Your task to perform on an android device: turn on priority inbox in the gmail app Image 0: 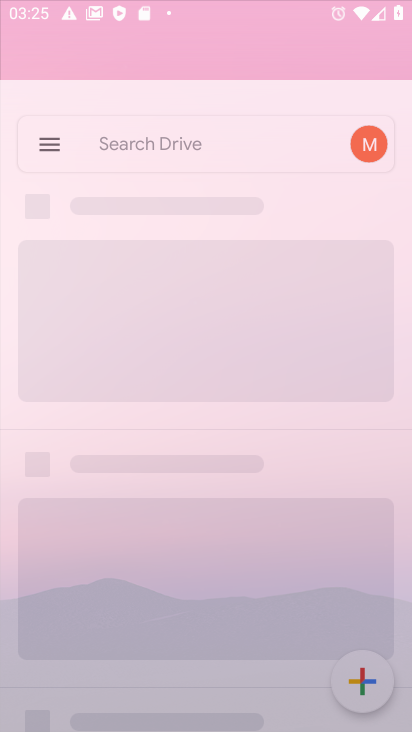
Step 0: press home button
Your task to perform on an android device: turn on priority inbox in the gmail app Image 1: 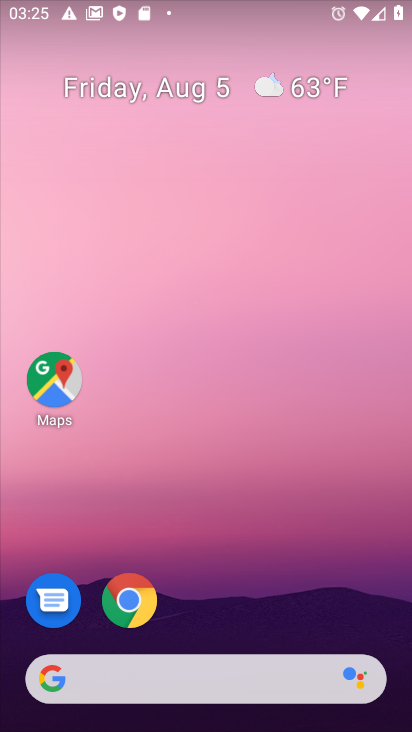
Step 1: drag from (206, 692) to (276, 79)
Your task to perform on an android device: turn on priority inbox in the gmail app Image 2: 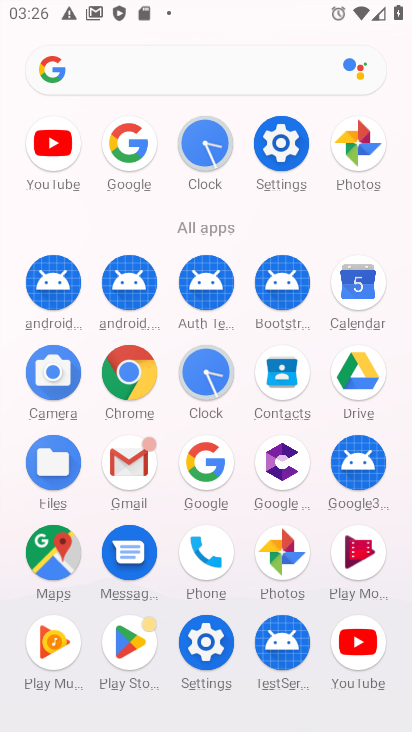
Step 2: click (129, 464)
Your task to perform on an android device: turn on priority inbox in the gmail app Image 3: 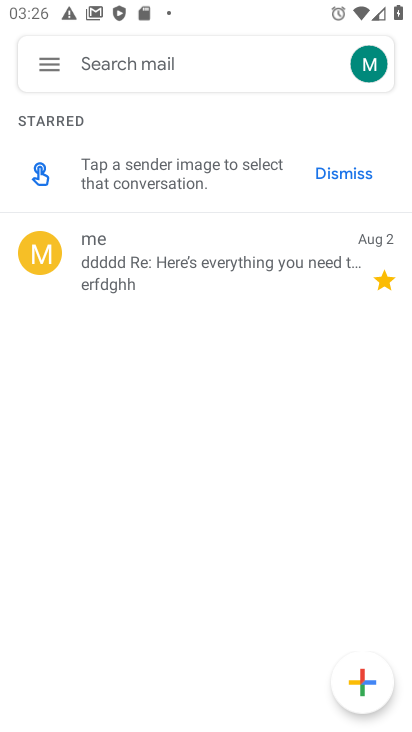
Step 3: click (53, 68)
Your task to perform on an android device: turn on priority inbox in the gmail app Image 4: 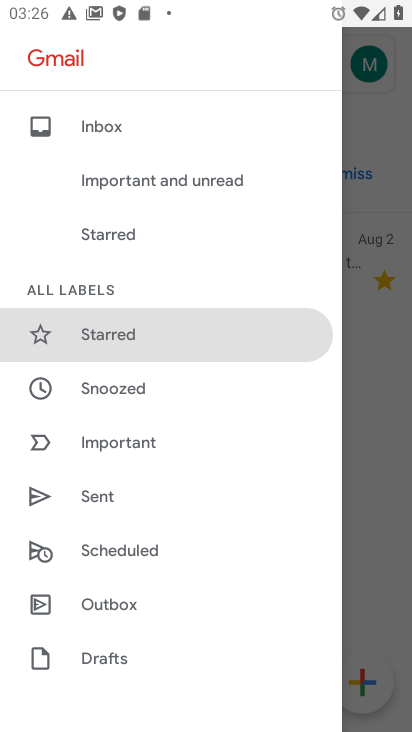
Step 4: drag from (111, 419) to (162, 332)
Your task to perform on an android device: turn on priority inbox in the gmail app Image 5: 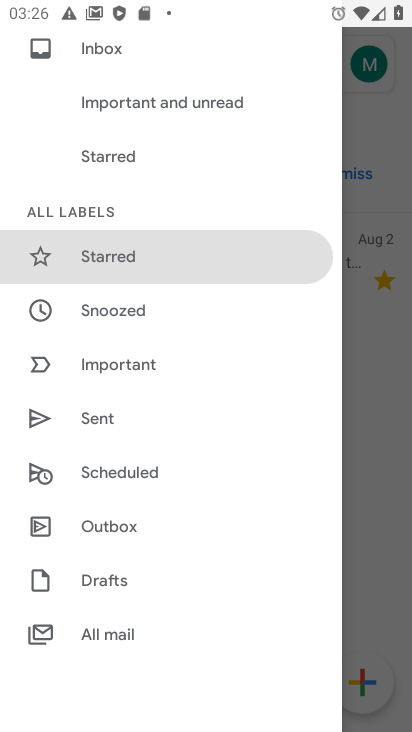
Step 5: drag from (127, 489) to (164, 398)
Your task to perform on an android device: turn on priority inbox in the gmail app Image 6: 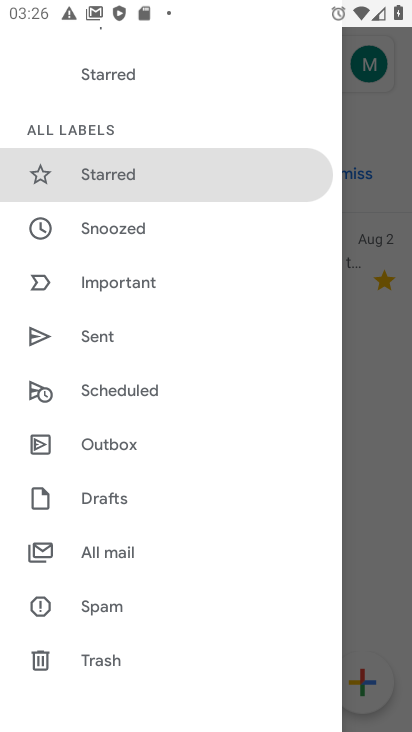
Step 6: drag from (106, 470) to (147, 382)
Your task to perform on an android device: turn on priority inbox in the gmail app Image 7: 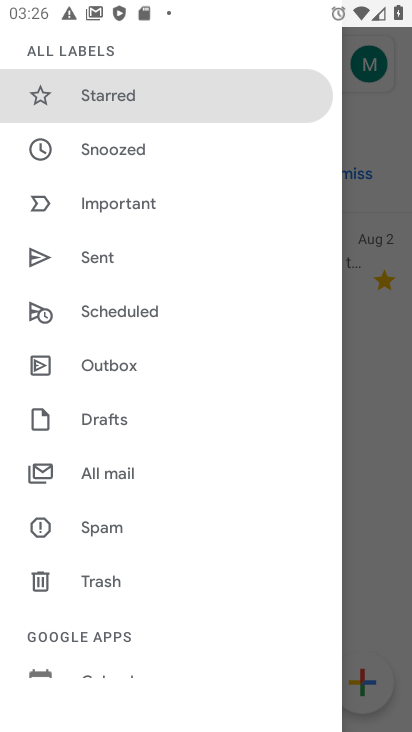
Step 7: drag from (103, 452) to (150, 379)
Your task to perform on an android device: turn on priority inbox in the gmail app Image 8: 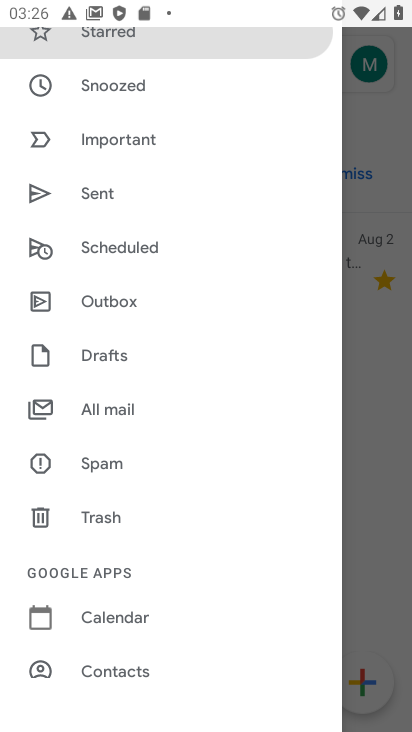
Step 8: drag from (102, 490) to (159, 402)
Your task to perform on an android device: turn on priority inbox in the gmail app Image 9: 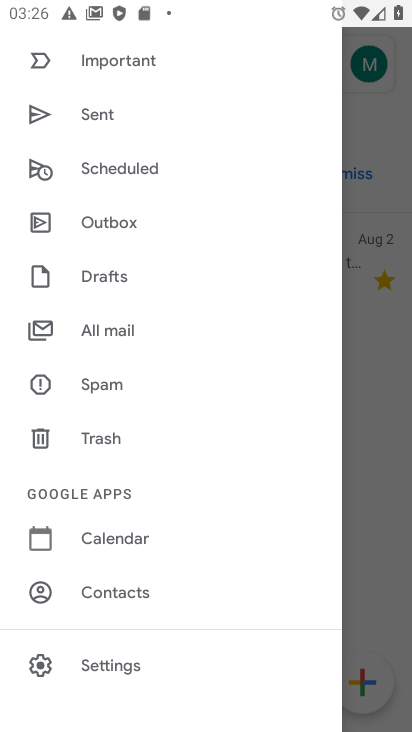
Step 9: drag from (109, 534) to (182, 439)
Your task to perform on an android device: turn on priority inbox in the gmail app Image 10: 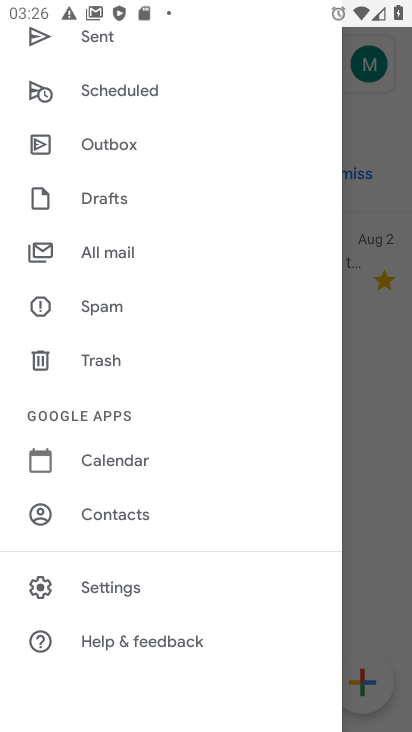
Step 10: click (118, 590)
Your task to perform on an android device: turn on priority inbox in the gmail app Image 11: 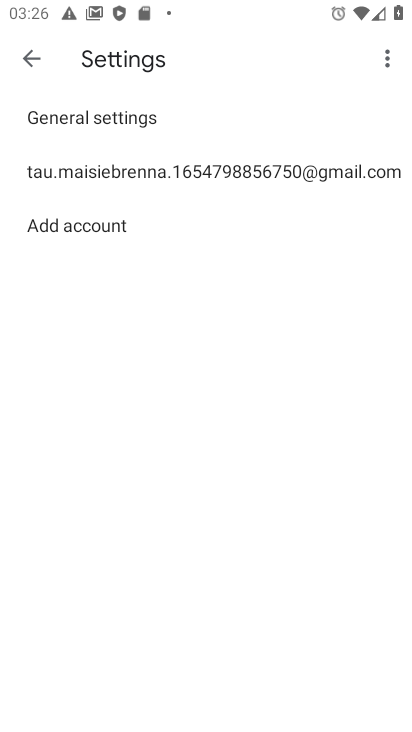
Step 11: click (109, 169)
Your task to perform on an android device: turn on priority inbox in the gmail app Image 12: 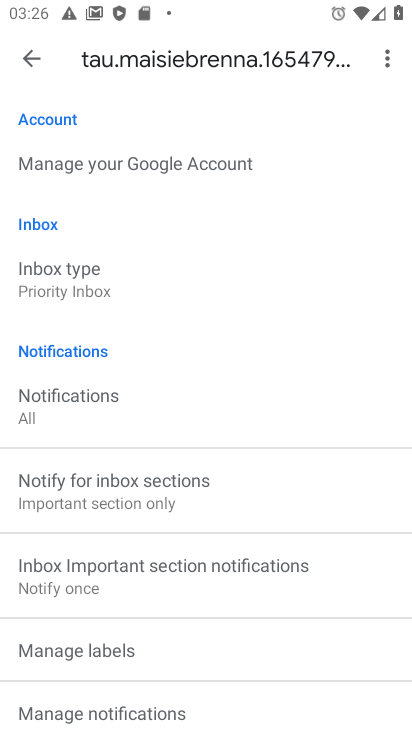
Step 12: click (95, 287)
Your task to perform on an android device: turn on priority inbox in the gmail app Image 13: 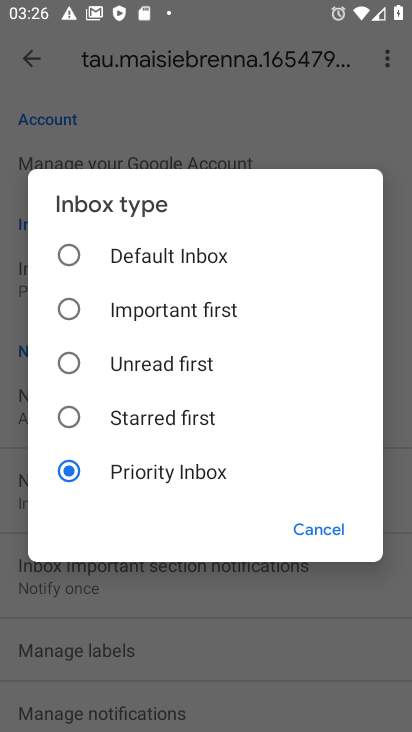
Step 13: click (72, 473)
Your task to perform on an android device: turn on priority inbox in the gmail app Image 14: 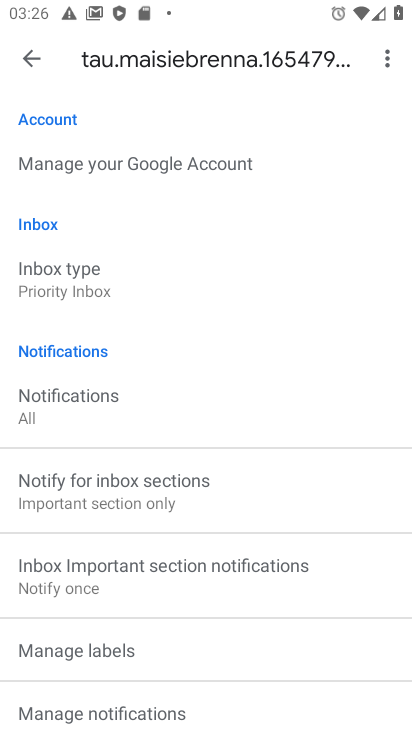
Step 14: task complete